Your task to perform on an android device: open app "VLC for Android" (install if not already installed) Image 0: 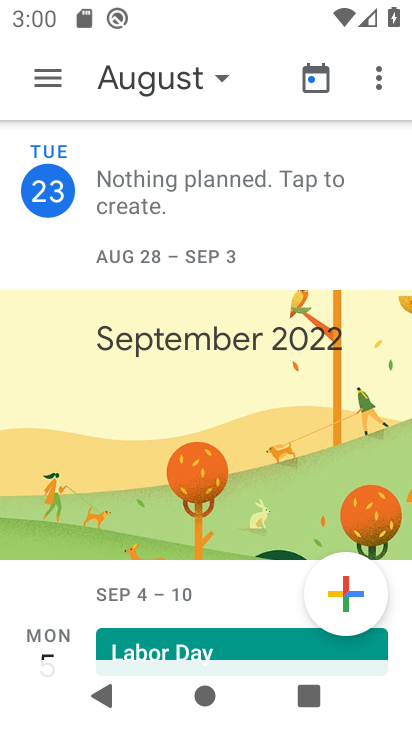
Step 0: press home button
Your task to perform on an android device: open app "VLC for Android" (install if not already installed) Image 1: 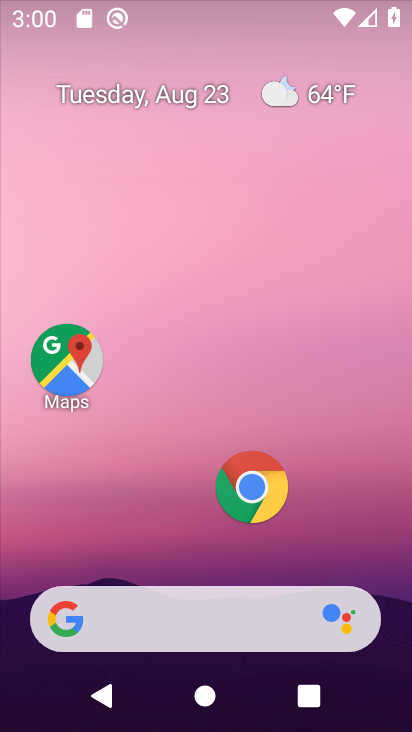
Step 1: drag from (203, 526) to (217, 266)
Your task to perform on an android device: open app "VLC for Android" (install if not already installed) Image 2: 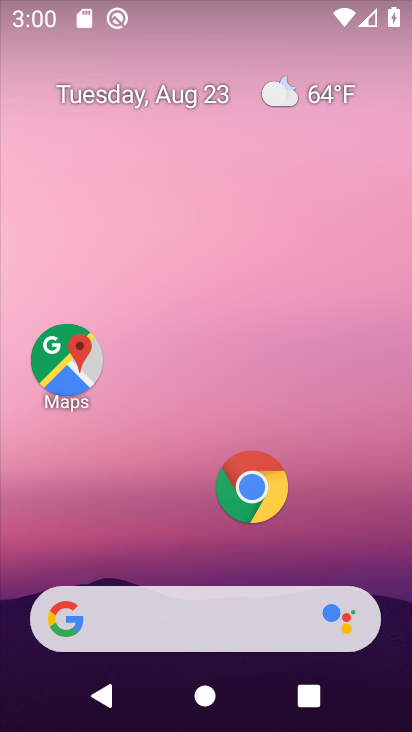
Step 2: drag from (176, 532) to (216, 190)
Your task to perform on an android device: open app "VLC for Android" (install if not already installed) Image 3: 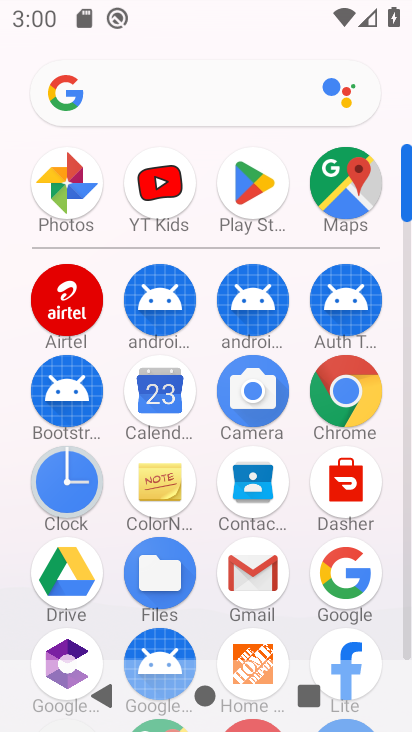
Step 3: click (233, 175)
Your task to perform on an android device: open app "VLC for Android" (install if not already installed) Image 4: 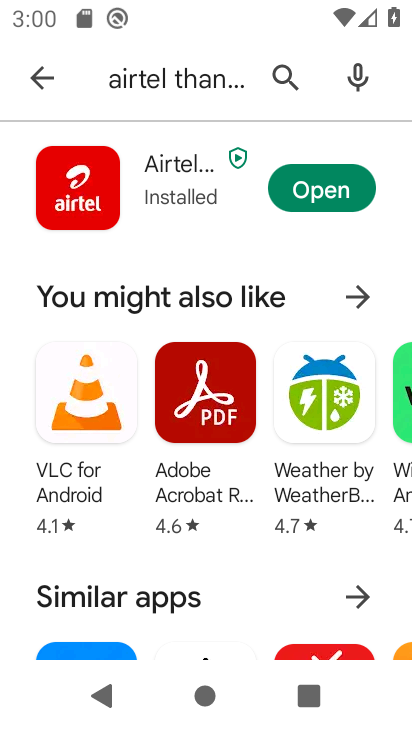
Step 4: click (38, 70)
Your task to perform on an android device: open app "VLC for Android" (install if not already installed) Image 5: 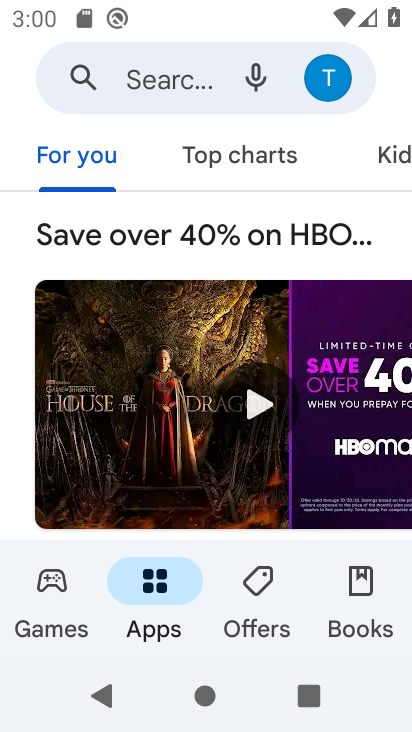
Step 5: click (154, 64)
Your task to perform on an android device: open app "VLC for Android" (install if not already installed) Image 6: 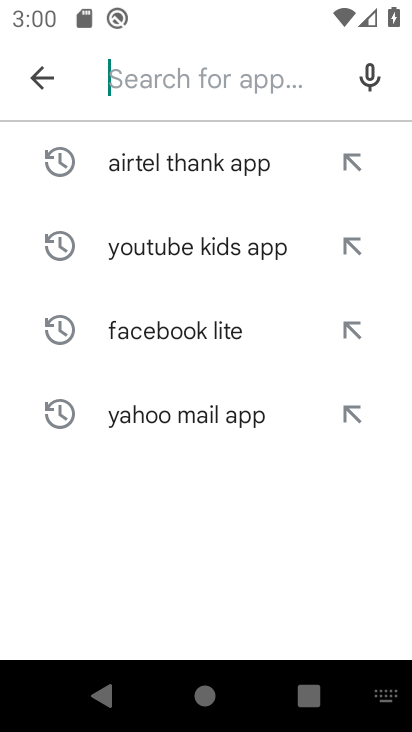
Step 6: type "VLC for Android "
Your task to perform on an android device: open app "VLC for Android" (install if not already installed) Image 7: 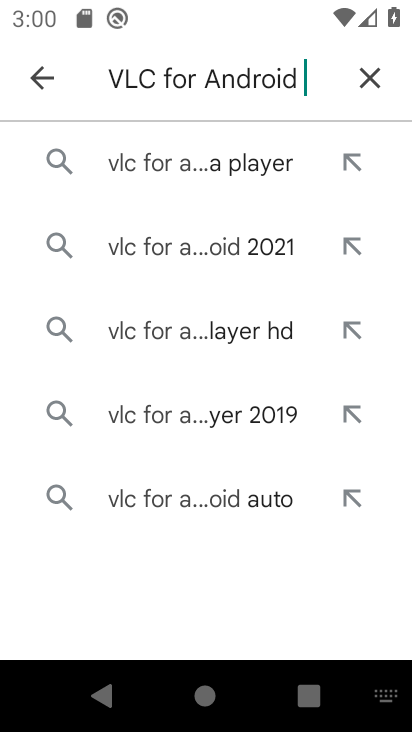
Step 7: click (171, 154)
Your task to perform on an android device: open app "VLC for Android" (install if not already installed) Image 8: 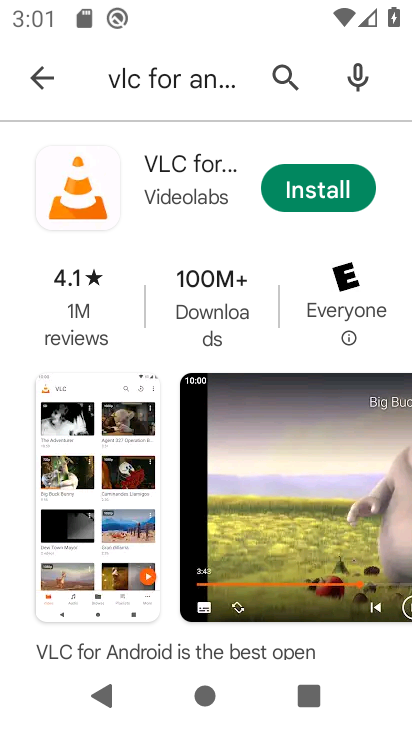
Step 8: click (304, 184)
Your task to perform on an android device: open app "VLC for Android" (install if not already installed) Image 9: 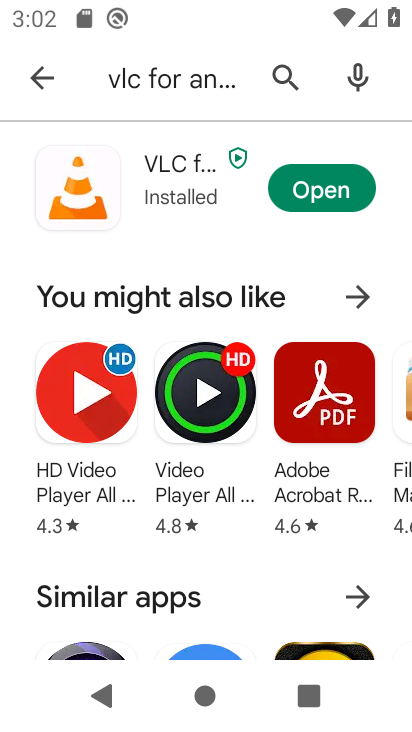
Step 9: task complete